Your task to perform on an android device: What is the recent news? Image 0: 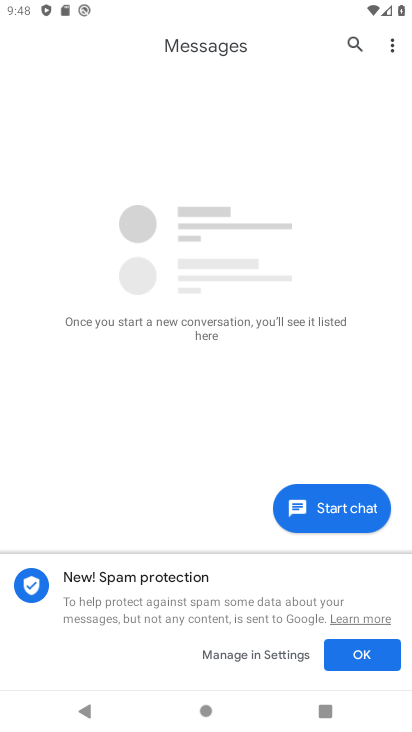
Step 0: press home button
Your task to perform on an android device: What is the recent news? Image 1: 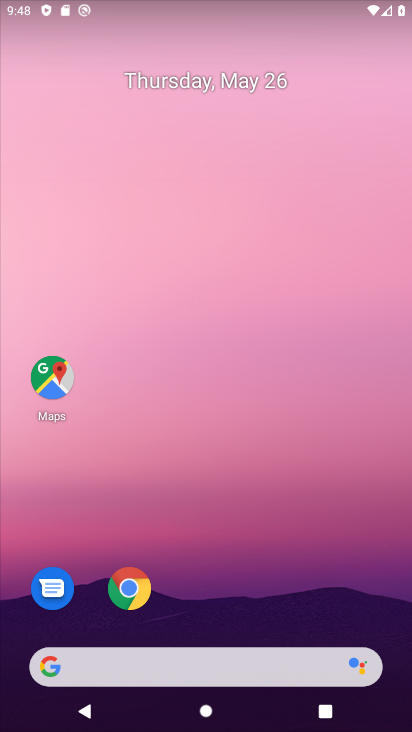
Step 1: task complete